Your task to perform on an android device: set an alarm Image 0: 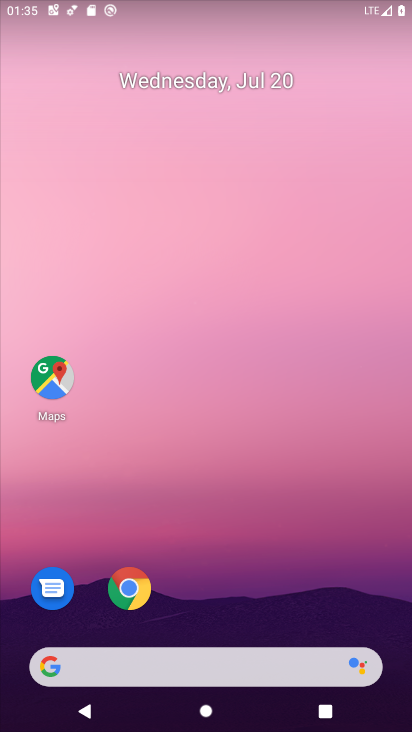
Step 0: drag from (252, 606) to (247, 282)
Your task to perform on an android device: set an alarm Image 1: 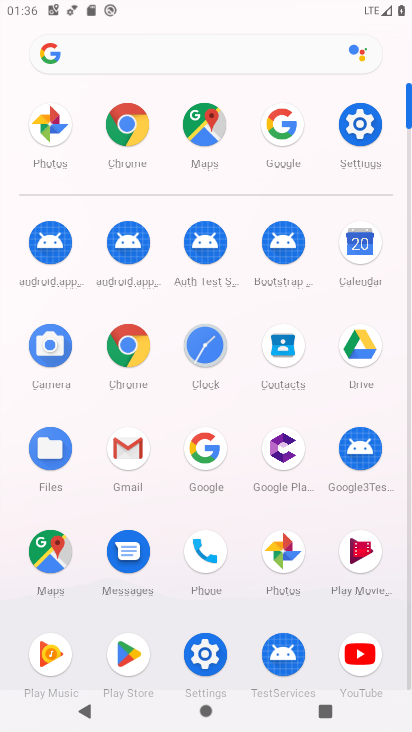
Step 1: click (195, 339)
Your task to perform on an android device: set an alarm Image 2: 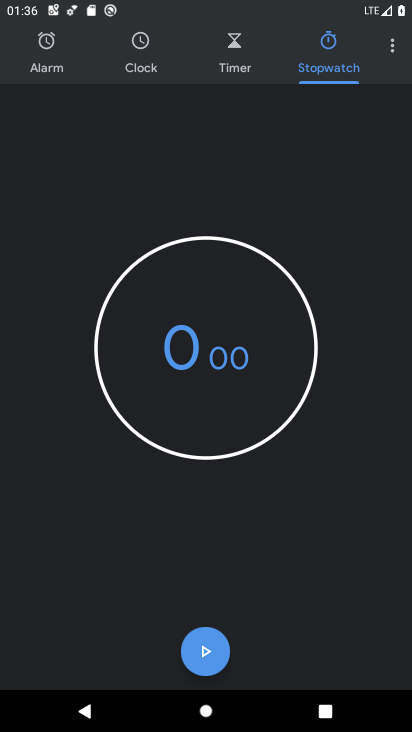
Step 2: click (54, 69)
Your task to perform on an android device: set an alarm Image 3: 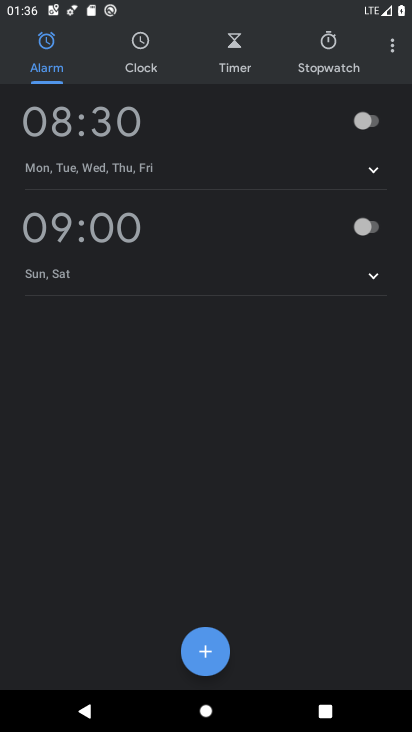
Step 3: click (382, 114)
Your task to perform on an android device: set an alarm Image 4: 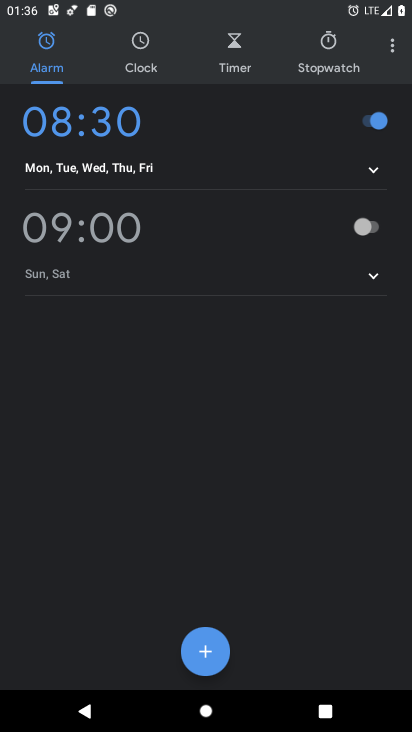
Step 4: task complete